Your task to perform on an android device: turn on location history Image 0: 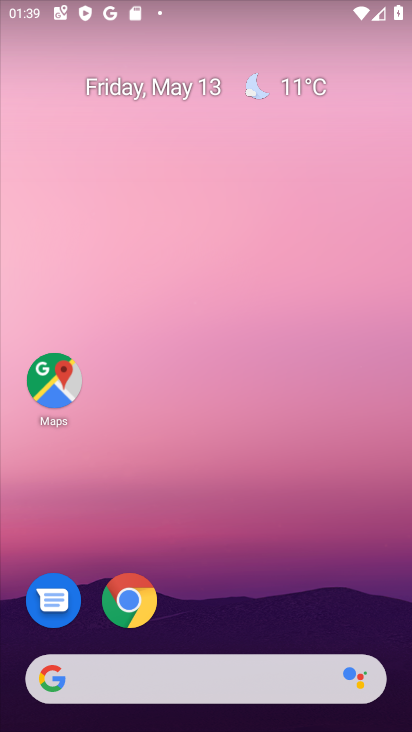
Step 0: drag from (244, 409) to (283, 108)
Your task to perform on an android device: turn on location history Image 1: 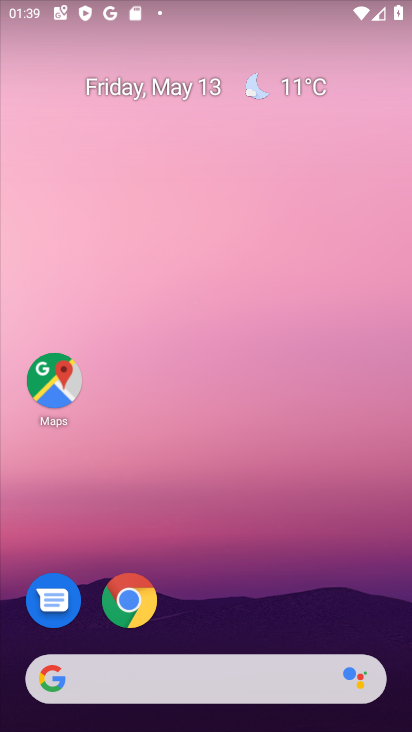
Step 1: drag from (215, 539) to (297, 11)
Your task to perform on an android device: turn on location history Image 2: 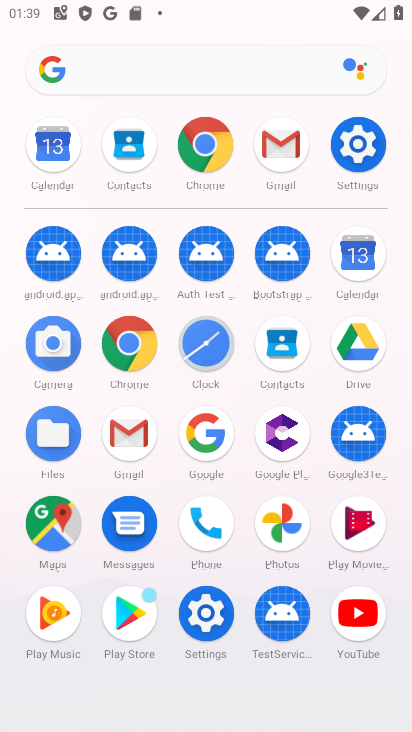
Step 2: click (354, 145)
Your task to perform on an android device: turn on location history Image 3: 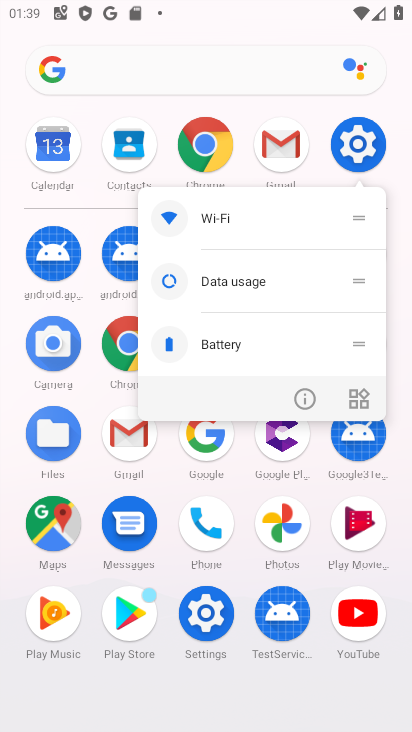
Step 3: click (314, 393)
Your task to perform on an android device: turn on location history Image 4: 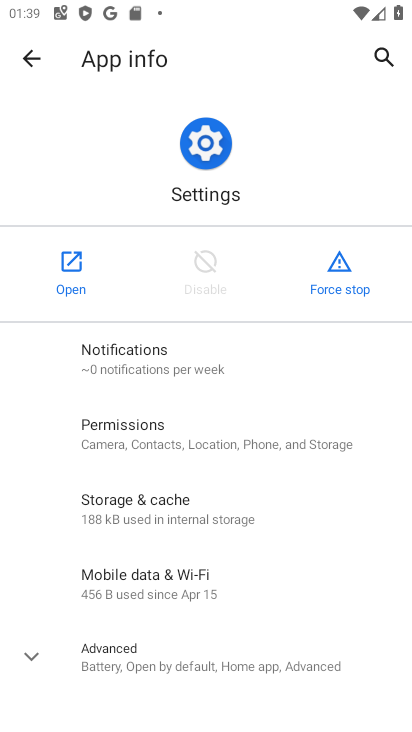
Step 4: click (79, 251)
Your task to perform on an android device: turn on location history Image 5: 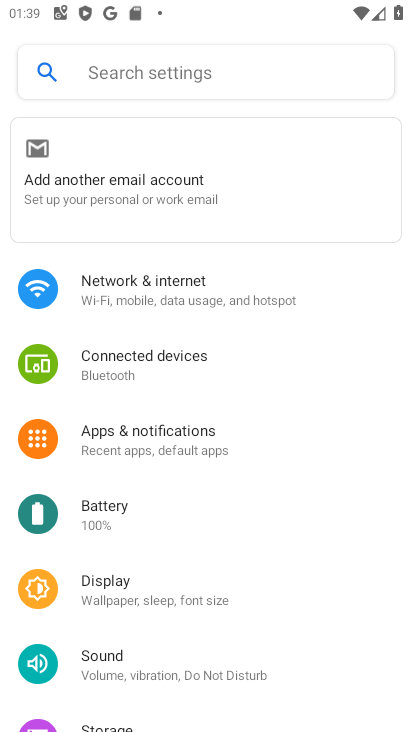
Step 5: drag from (176, 605) to (225, 57)
Your task to perform on an android device: turn on location history Image 6: 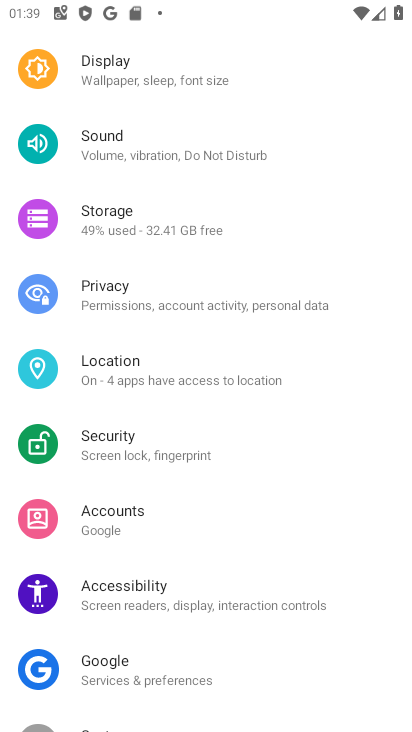
Step 6: click (122, 370)
Your task to perform on an android device: turn on location history Image 7: 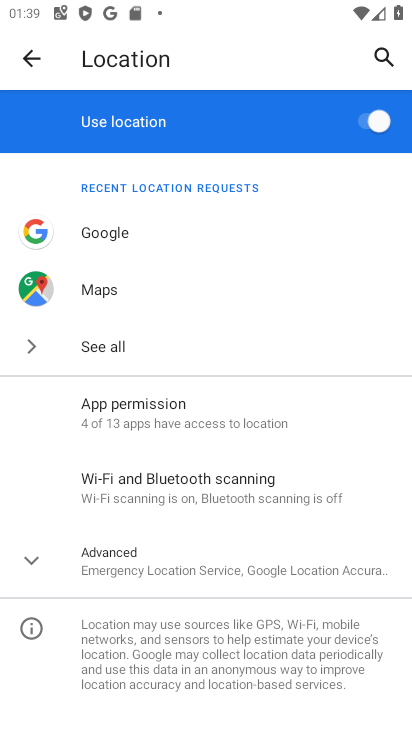
Step 7: click (131, 567)
Your task to perform on an android device: turn on location history Image 8: 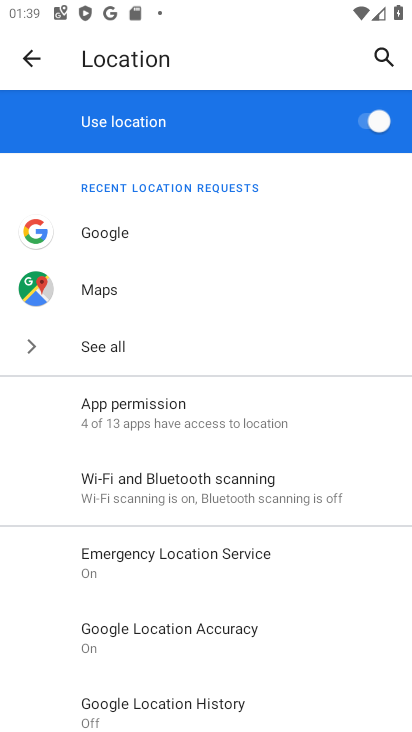
Step 8: drag from (220, 632) to (311, 259)
Your task to perform on an android device: turn on location history Image 9: 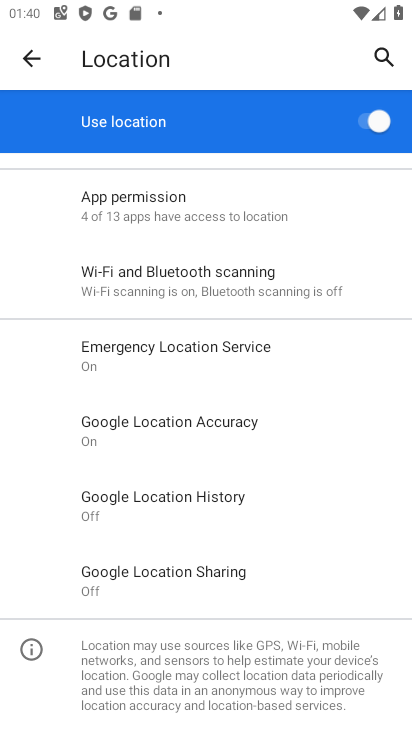
Step 9: click (174, 501)
Your task to perform on an android device: turn on location history Image 10: 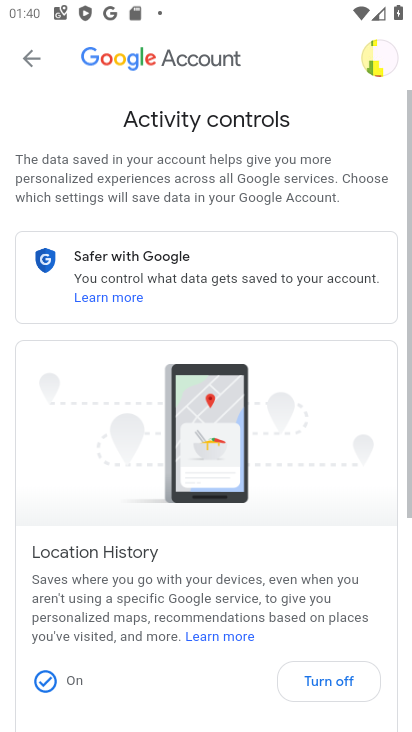
Step 10: task complete